Your task to perform on an android device: Open Google Maps and go to "Timeline" Image 0: 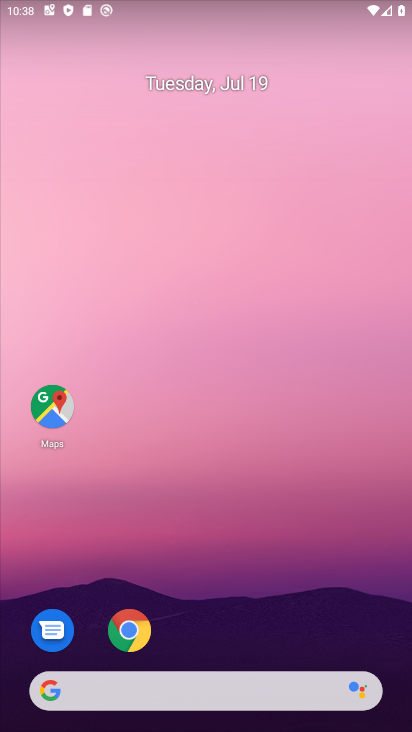
Step 0: press home button
Your task to perform on an android device: Open Google Maps and go to "Timeline" Image 1: 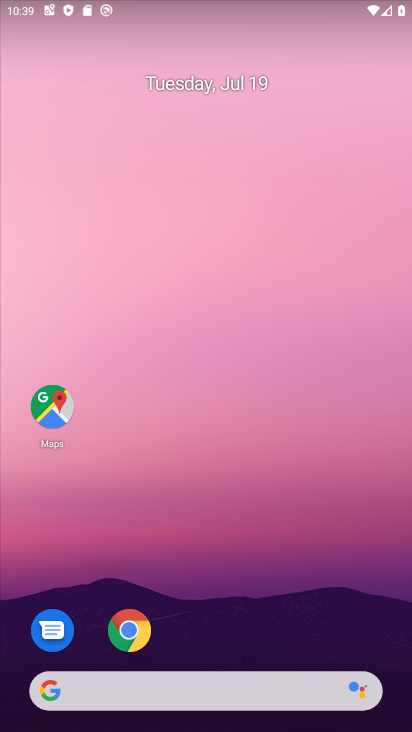
Step 1: click (31, 408)
Your task to perform on an android device: Open Google Maps and go to "Timeline" Image 2: 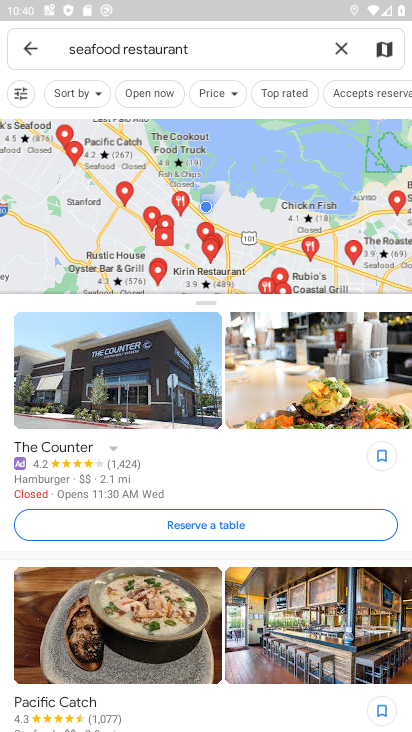
Step 2: click (338, 46)
Your task to perform on an android device: Open Google Maps and go to "Timeline" Image 3: 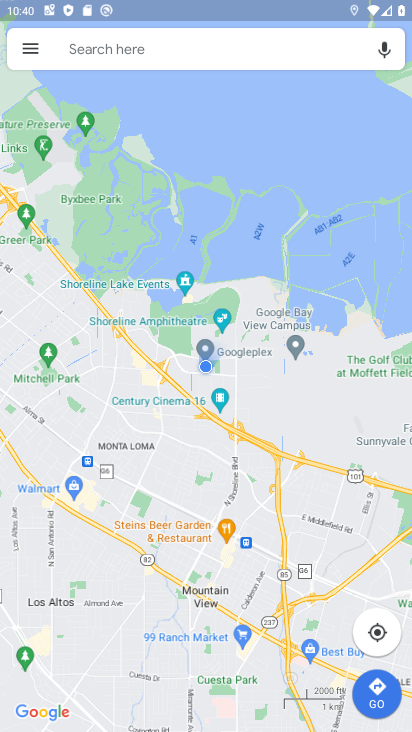
Step 3: click (27, 46)
Your task to perform on an android device: Open Google Maps and go to "Timeline" Image 4: 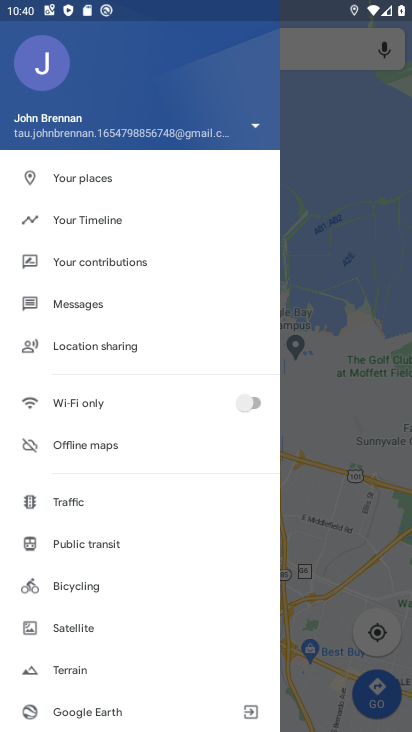
Step 4: click (97, 222)
Your task to perform on an android device: Open Google Maps and go to "Timeline" Image 5: 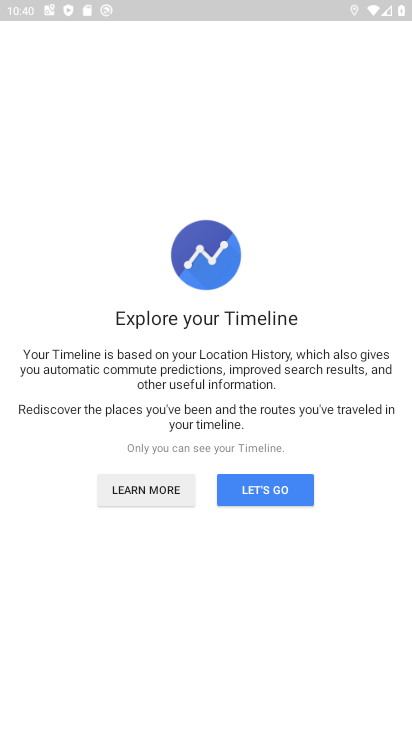
Step 5: click (294, 500)
Your task to perform on an android device: Open Google Maps and go to "Timeline" Image 6: 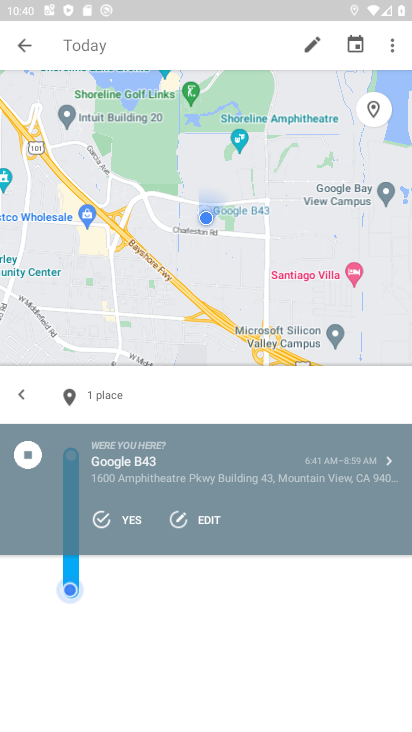
Step 6: task complete